Your task to perform on an android device: Clear the cart on amazon. Search for "dell xps" on amazon, select the first entry, and add it to the cart. Image 0: 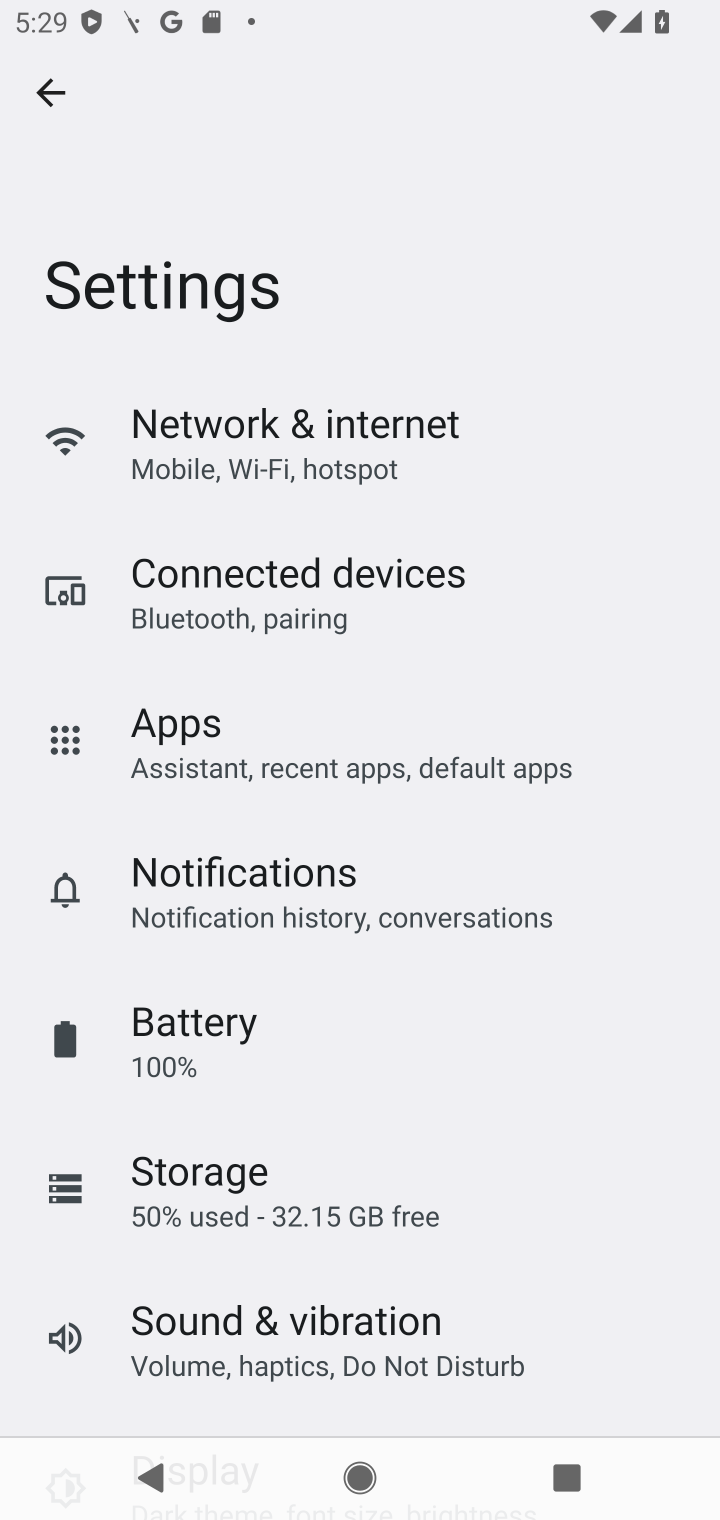
Step 0: press home button
Your task to perform on an android device: Clear the cart on amazon. Search for "dell xps" on amazon, select the first entry, and add it to the cart. Image 1: 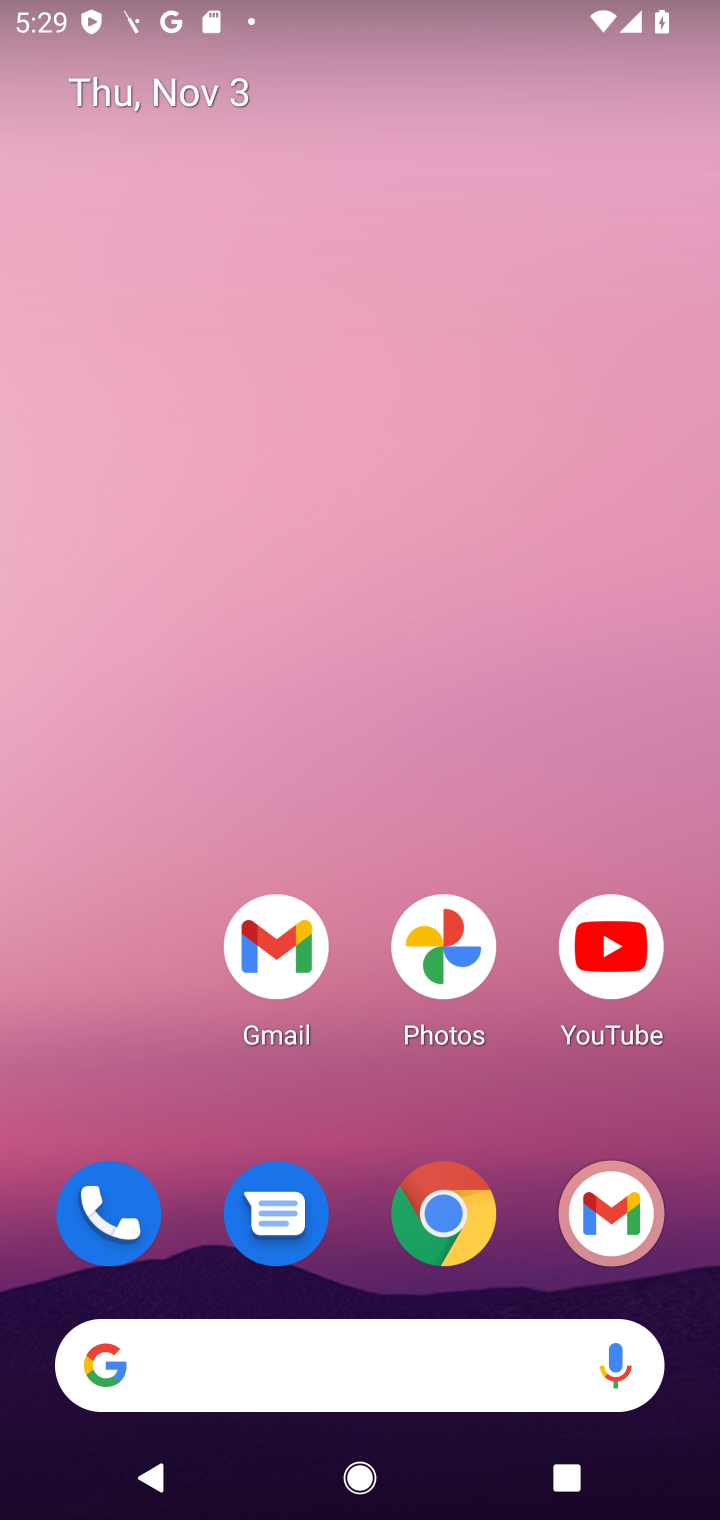
Step 1: click (450, 1226)
Your task to perform on an android device: Clear the cart on amazon. Search for "dell xps" on amazon, select the first entry, and add it to the cart. Image 2: 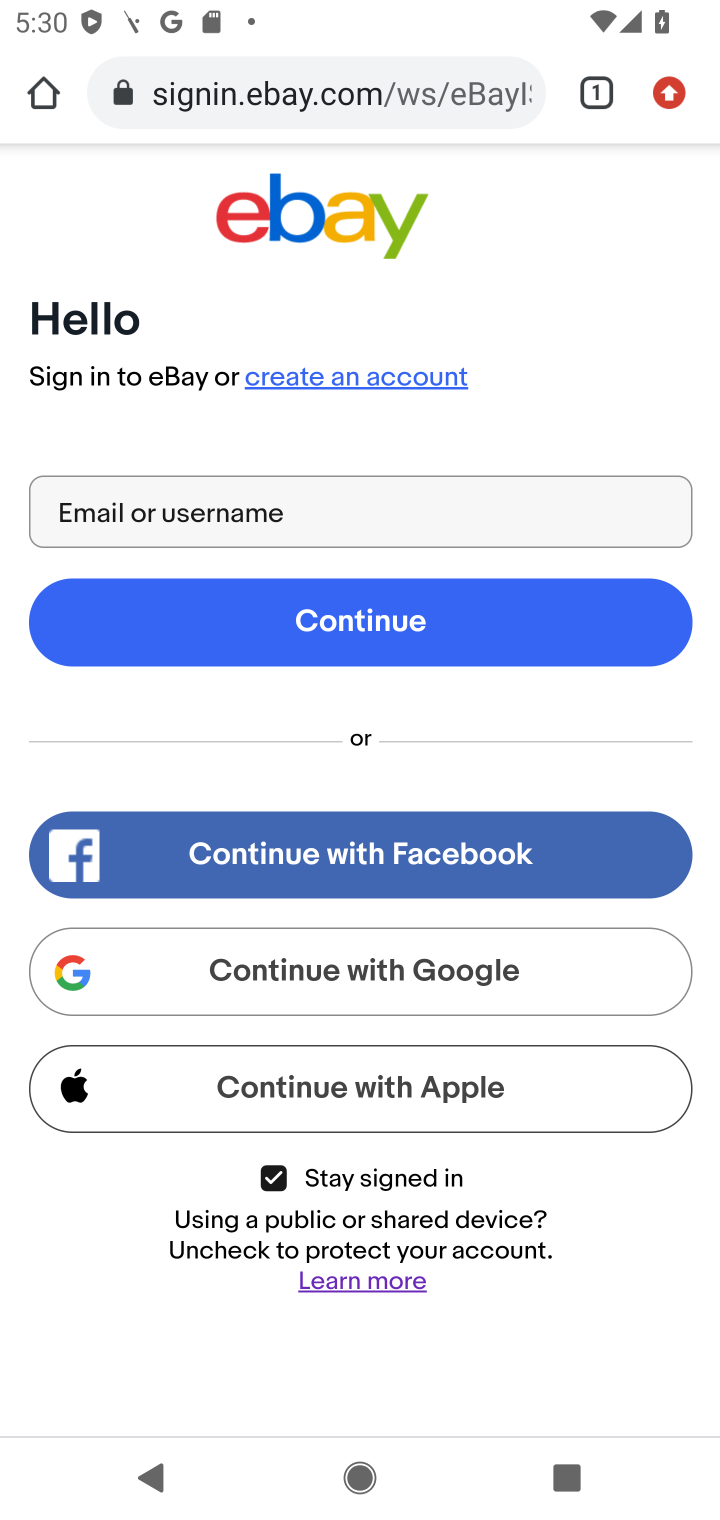
Step 2: click (289, 70)
Your task to perform on an android device: Clear the cart on amazon. Search for "dell xps" on amazon, select the first entry, and add it to the cart. Image 3: 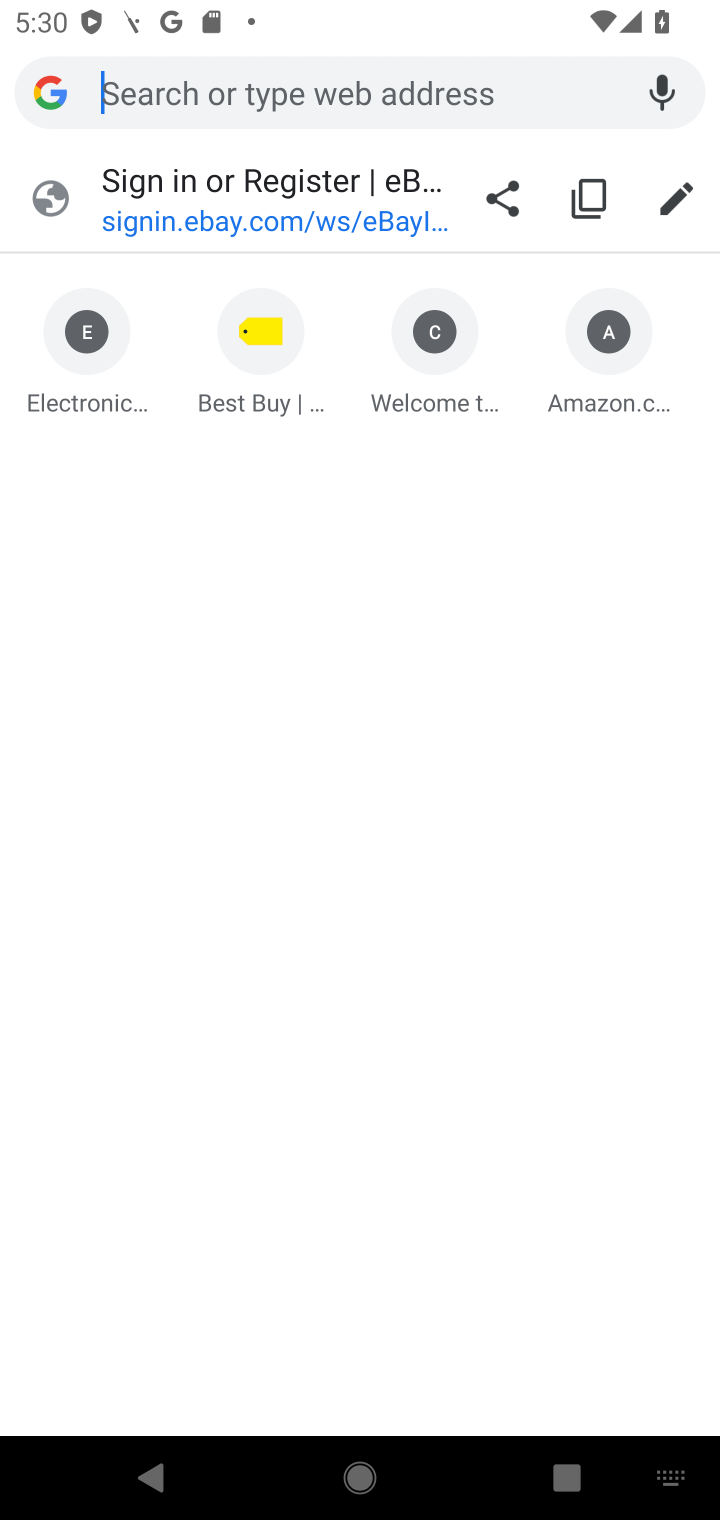
Step 3: click (576, 403)
Your task to perform on an android device: Clear the cart on amazon. Search for "dell xps" on amazon, select the first entry, and add it to the cart. Image 4: 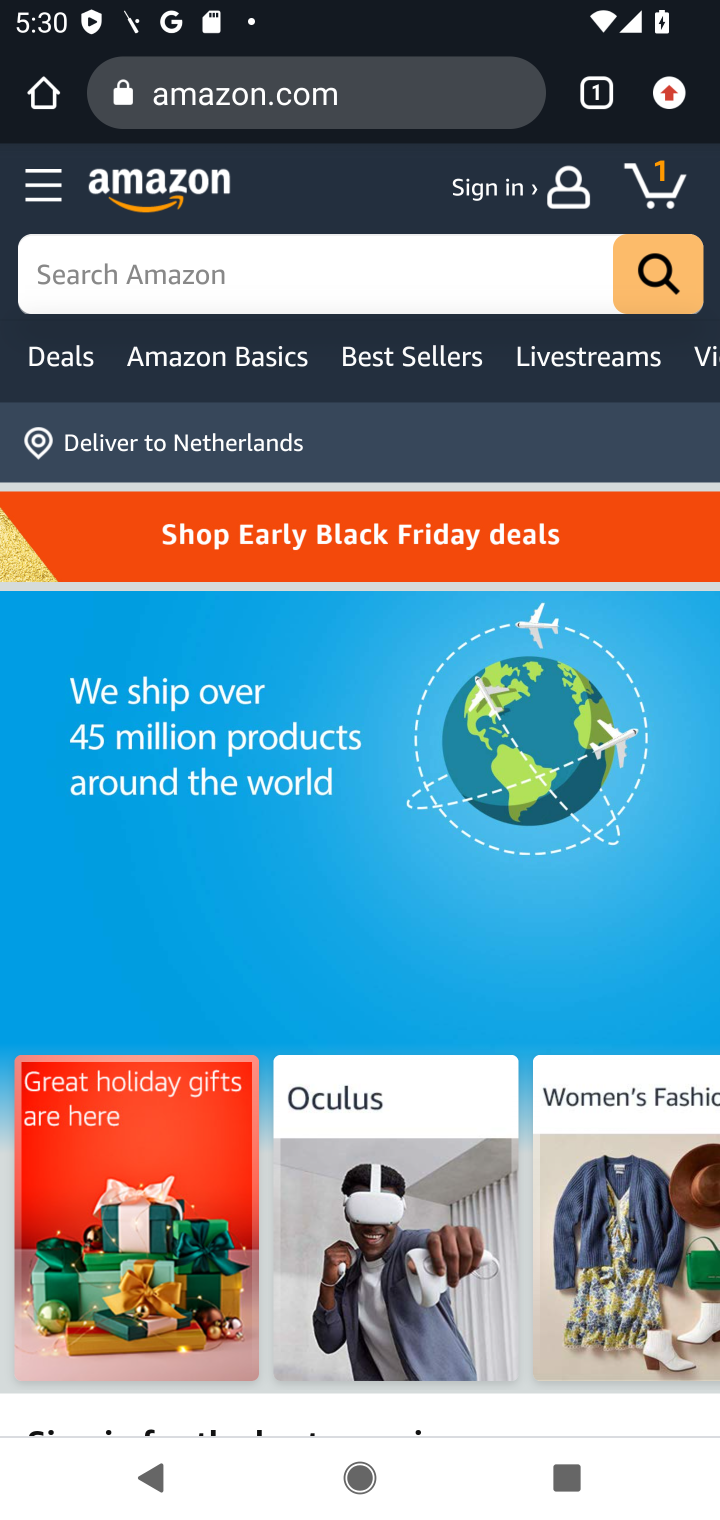
Step 4: click (649, 192)
Your task to perform on an android device: Clear the cart on amazon. Search for "dell xps" on amazon, select the first entry, and add it to the cart. Image 5: 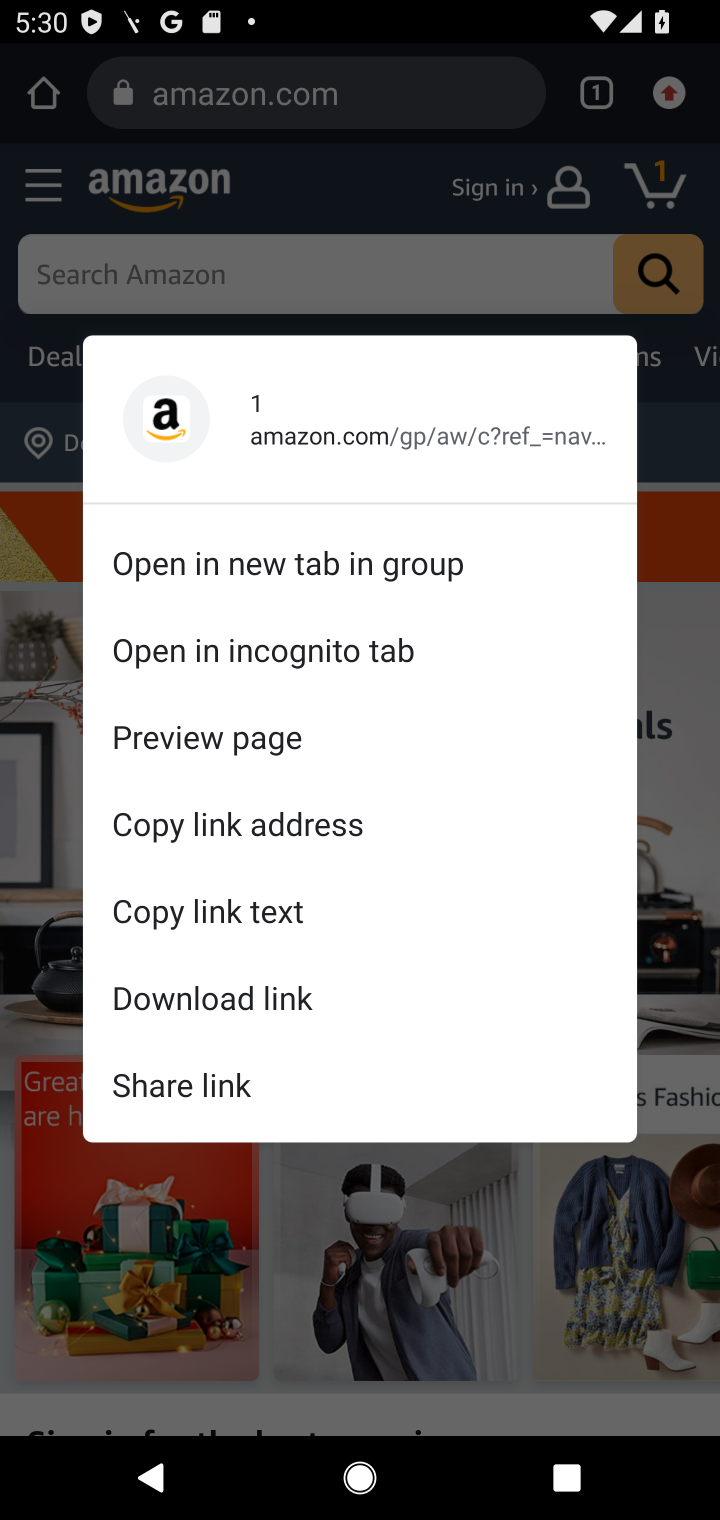
Step 5: click (682, 184)
Your task to perform on an android device: Clear the cart on amazon. Search for "dell xps" on amazon, select the first entry, and add it to the cart. Image 6: 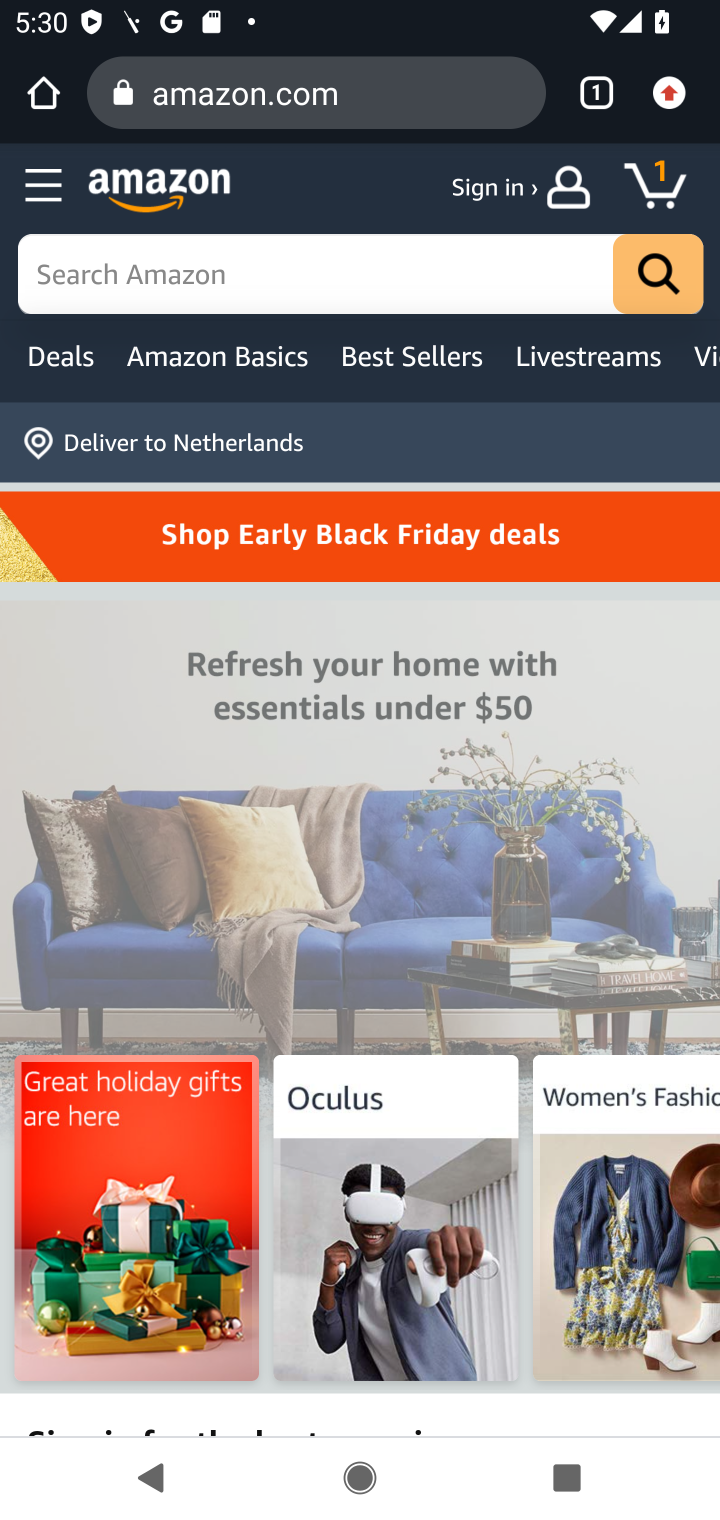
Step 6: click (664, 185)
Your task to perform on an android device: Clear the cart on amazon. Search for "dell xps" on amazon, select the first entry, and add it to the cart. Image 7: 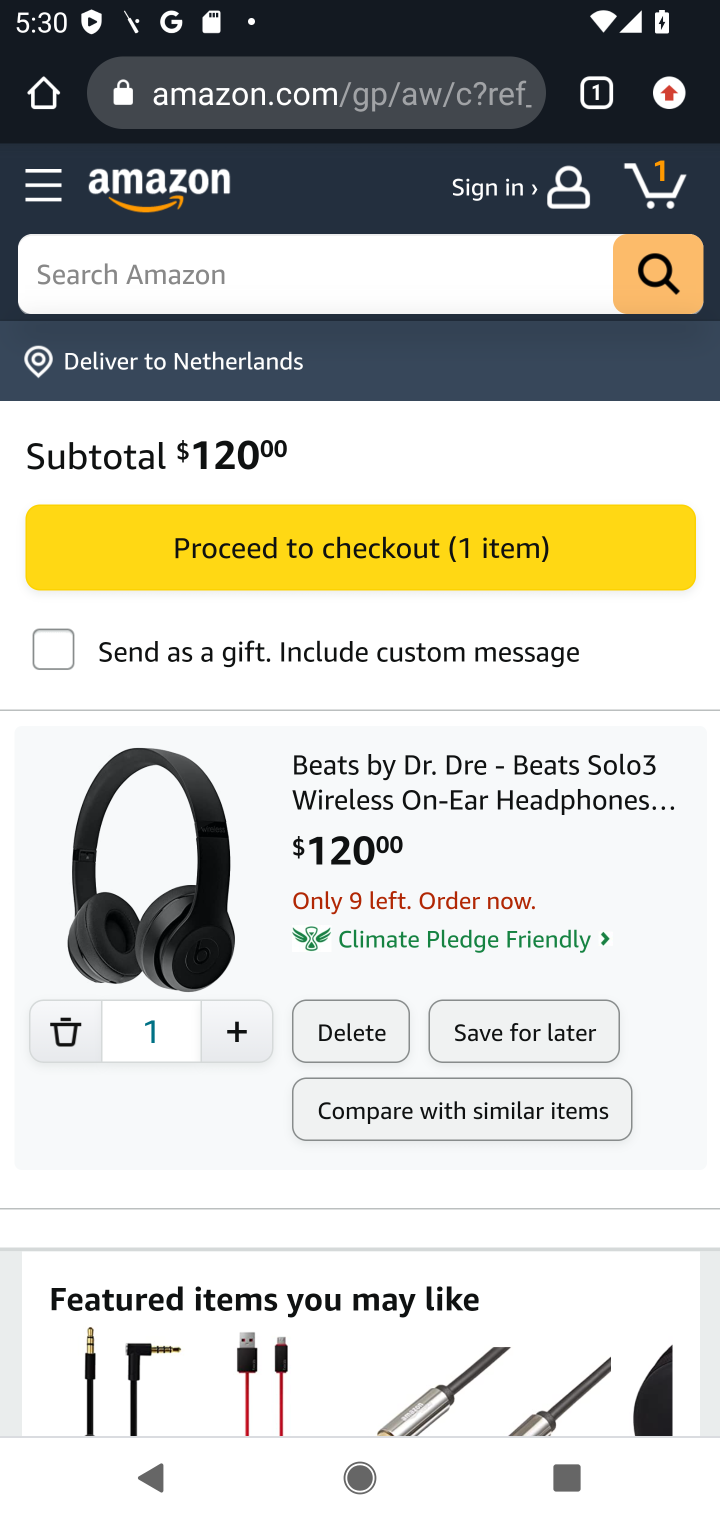
Step 7: click (371, 1030)
Your task to perform on an android device: Clear the cart on amazon. Search for "dell xps" on amazon, select the first entry, and add it to the cart. Image 8: 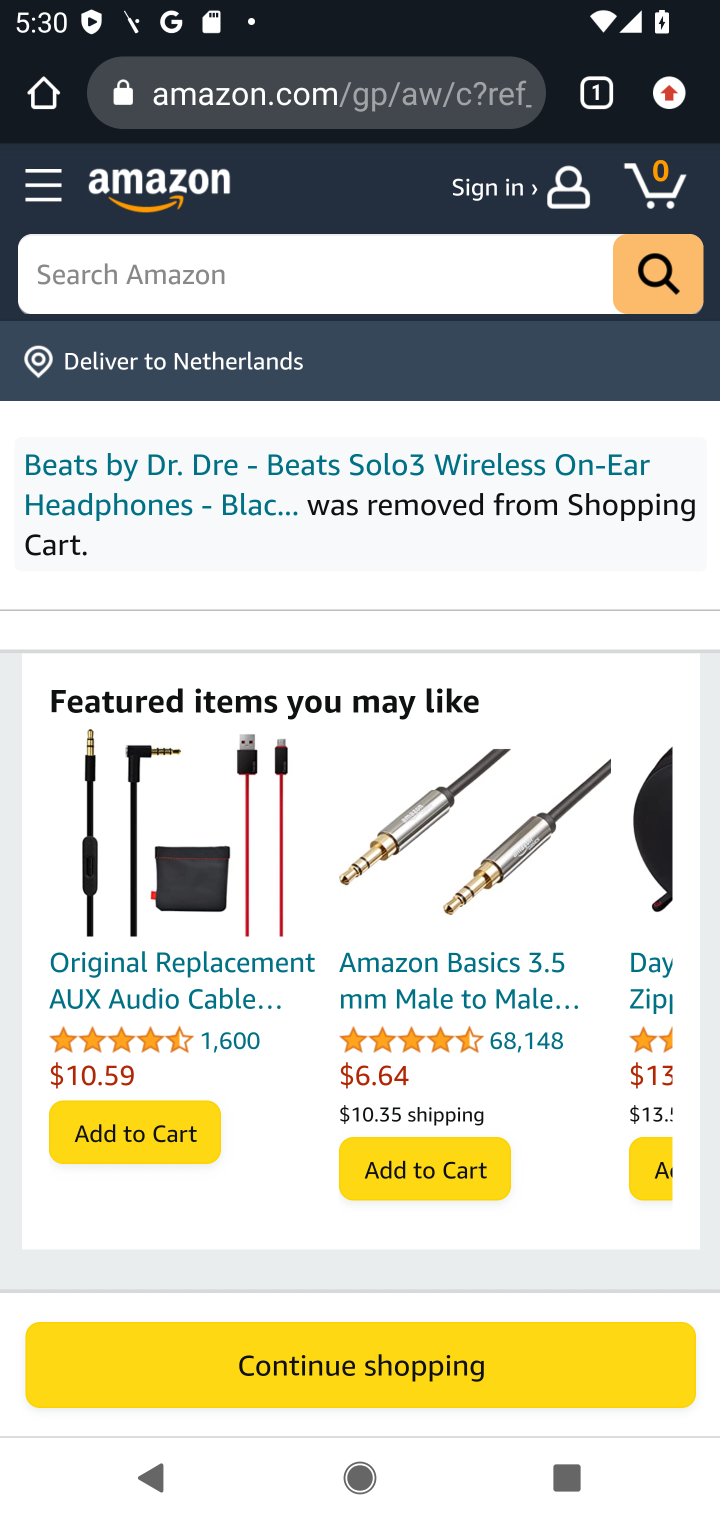
Step 8: click (288, 303)
Your task to perform on an android device: Clear the cart on amazon. Search for "dell xps" on amazon, select the first entry, and add it to the cart. Image 9: 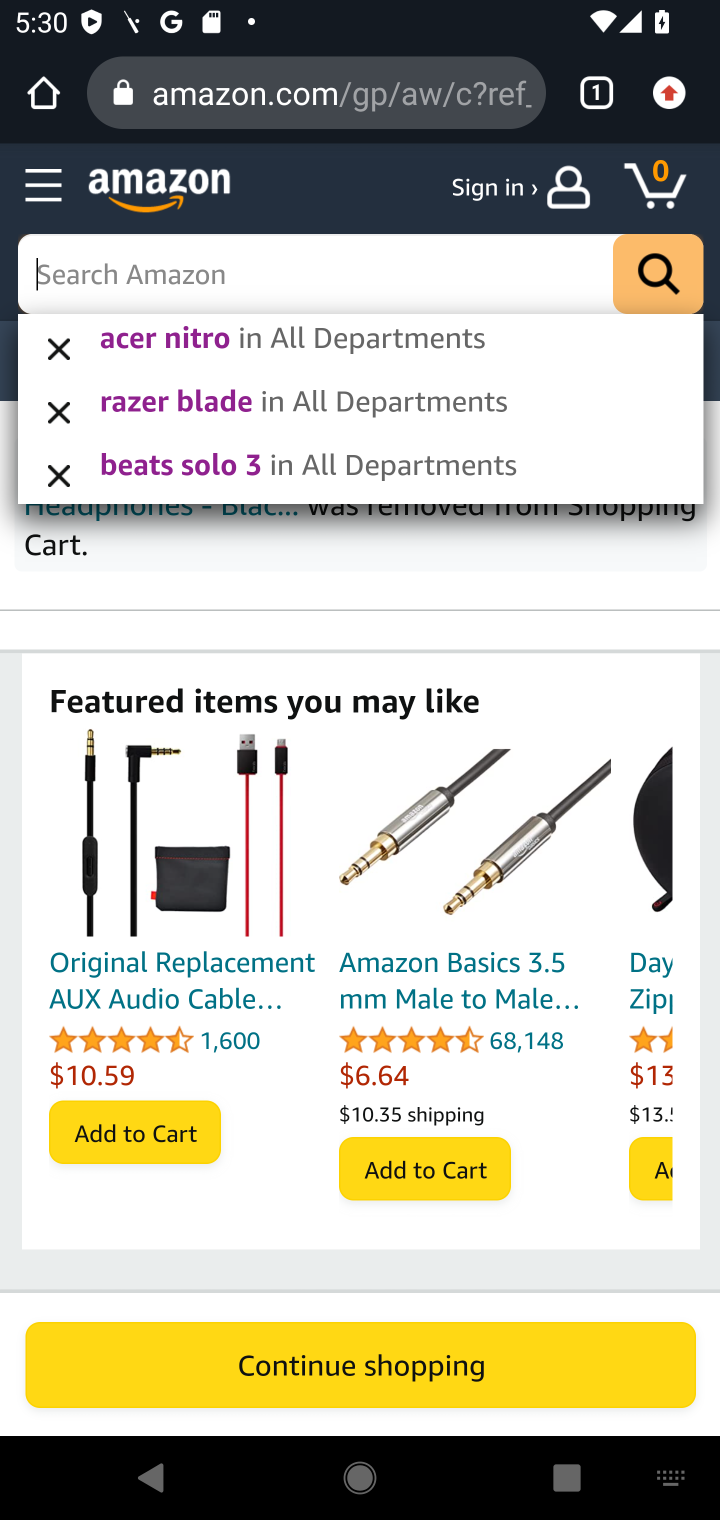
Step 9: type "dell xps"
Your task to perform on an android device: Clear the cart on amazon. Search for "dell xps" on amazon, select the first entry, and add it to the cart. Image 10: 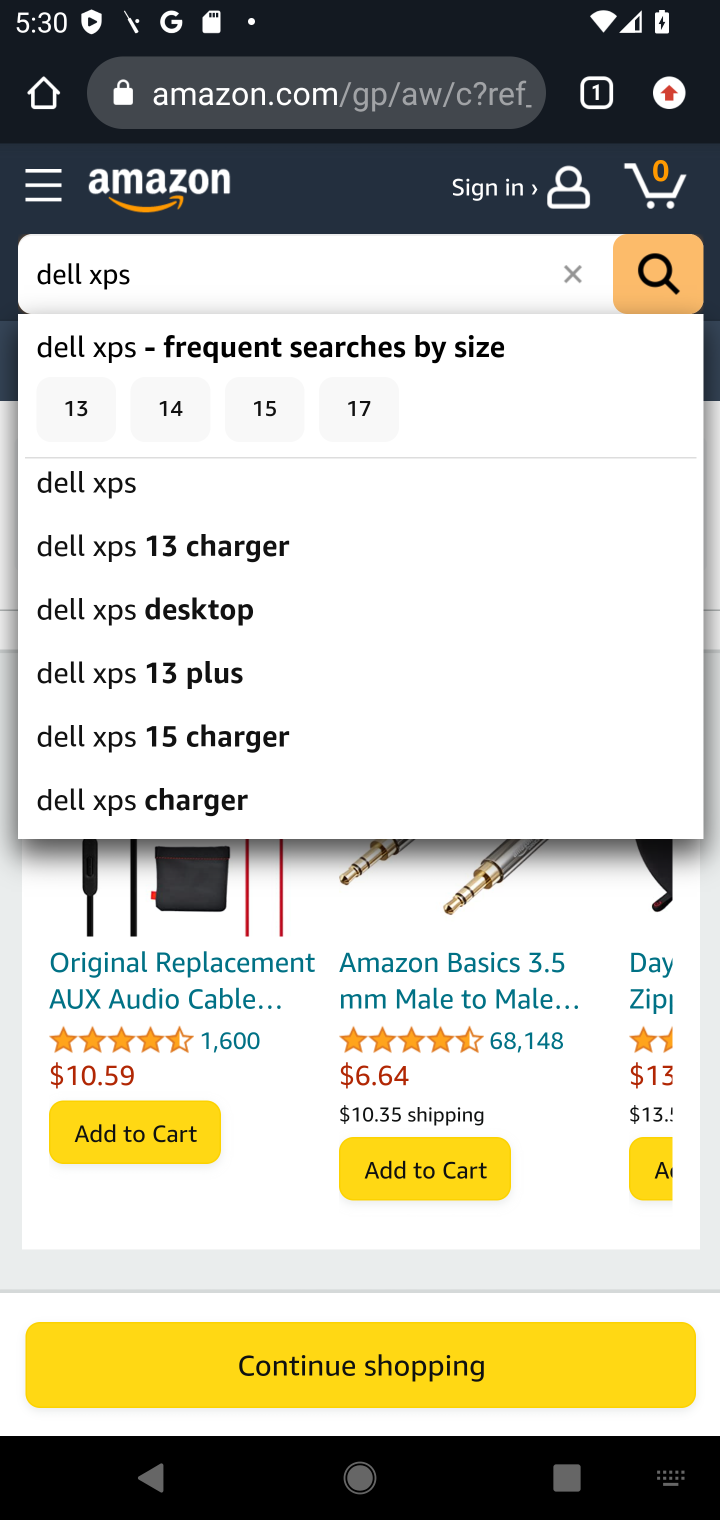
Step 10: click (79, 486)
Your task to perform on an android device: Clear the cart on amazon. Search for "dell xps" on amazon, select the first entry, and add it to the cart. Image 11: 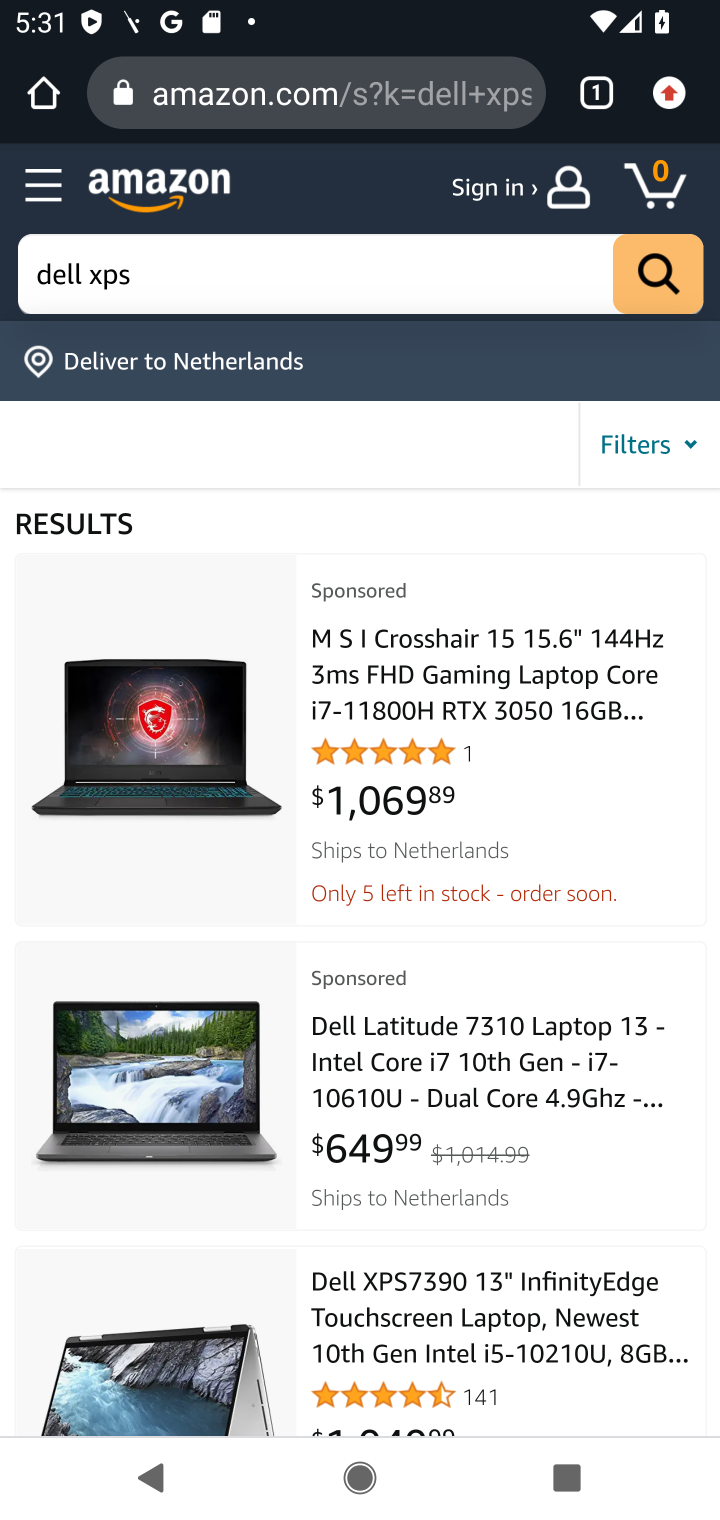
Step 11: task complete